Your task to perform on an android device: change keyboard looks Image 0: 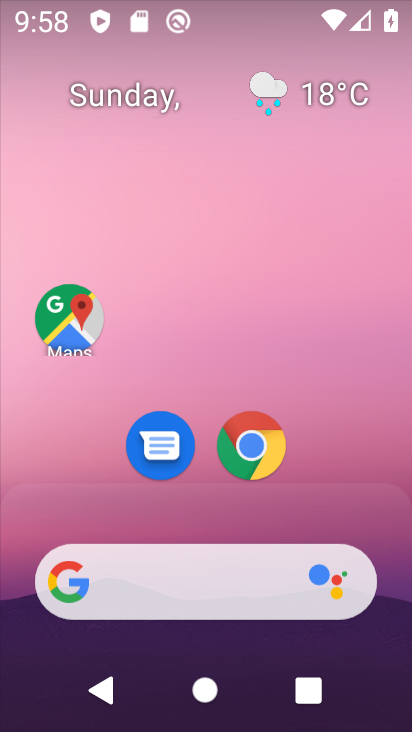
Step 0: press home button
Your task to perform on an android device: change keyboard looks Image 1: 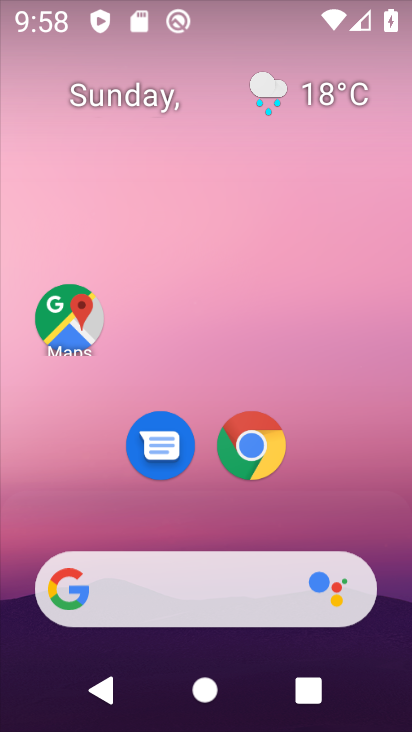
Step 1: drag from (214, 390) to (233, 16)
Your task to perform on an android device: change keyboard looks Image 2: 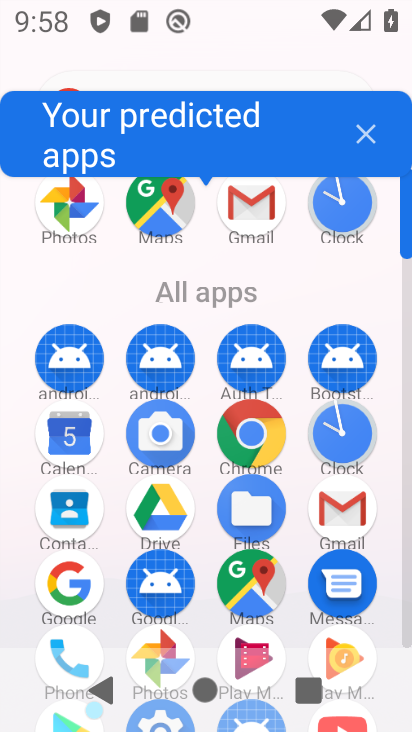
Step 2: drag from (298, 618) to (318, 150)
Your task to perform on an android device: change keyboard looks Image 3: 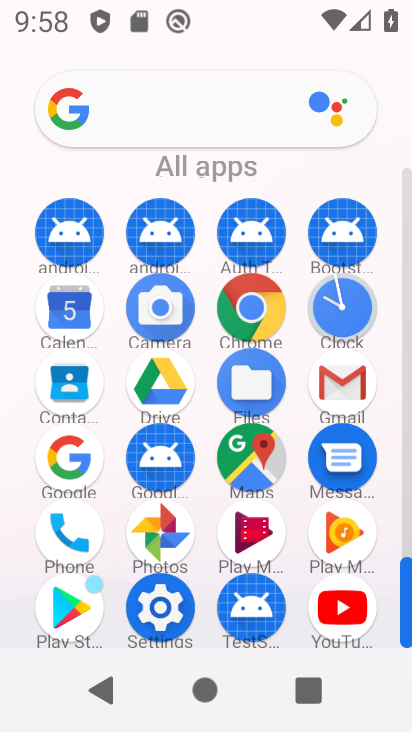
Step 3: click (151, 601)
Your task to perform on an android device: change keyboard looks Image 4: 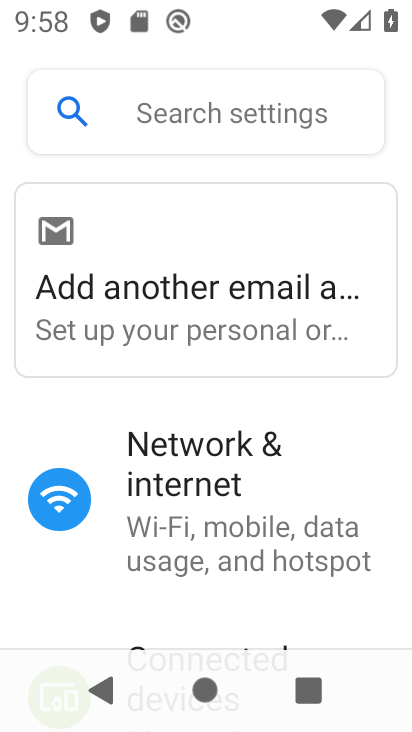
Step 4: drag from (263, 611) to (308, 3)
Your task to perform on an android device: change keyboard looks Image 5: 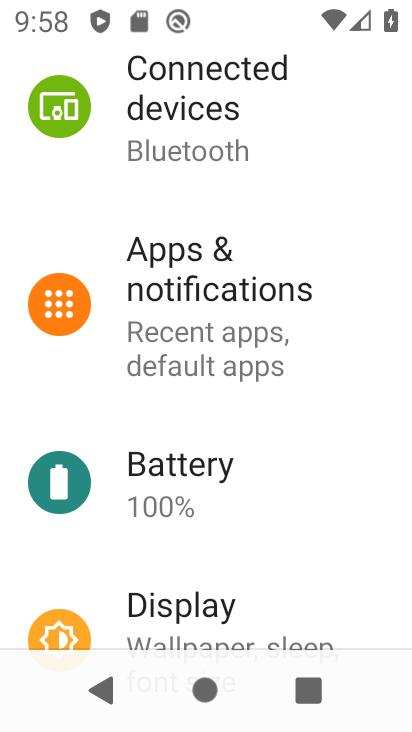
Step 5: drag from (249, 616) to (276, 4)
Your task to perform on an android device: change keyboard looks Image 6: 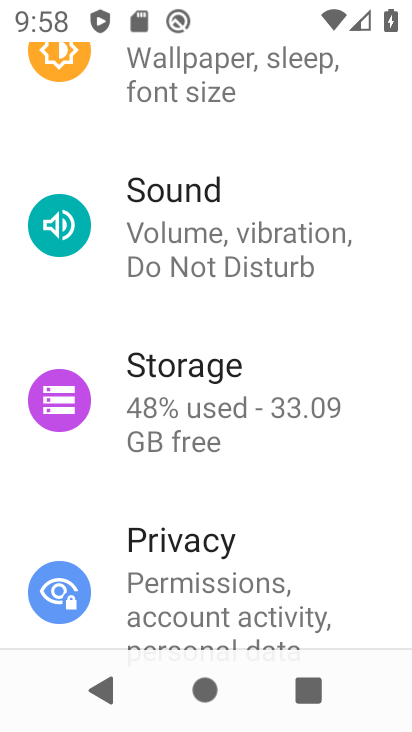
Step 6: drag from (261, 562) to (289, 43)
Your task to perform on an android device: change keyboard looks Image 7: 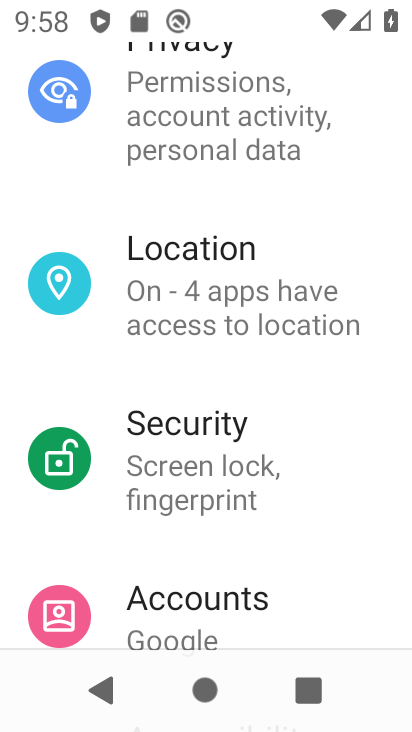
Step 7: drag from (254, 620) to (295, 123)
Your task to perform on an android device: change keyboard looks Image 8: 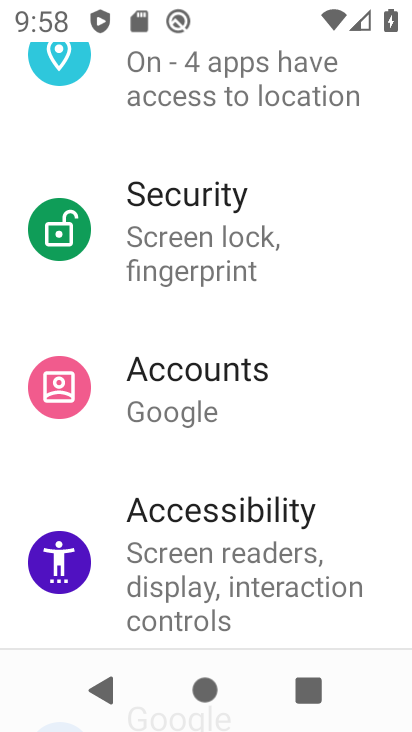
Step 8: drag from (264, 611) to (271, 99)
Your task to perform on an android device: change keyboard looks Image 9: 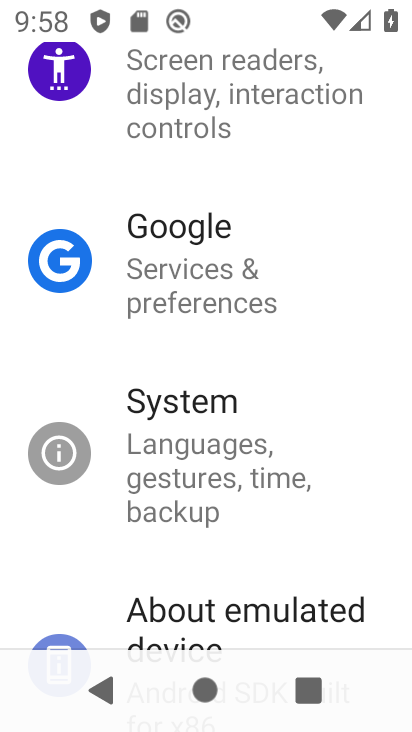
Step 9: click (280, 429)
Your task to perform on an android device: change keyboard looks Image 10: 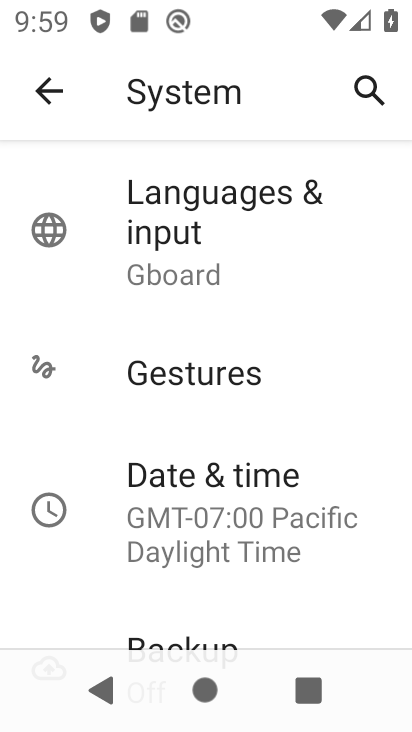
Step 10: click (214, 229)
Your task to perform on an android device: change keyboard looks Image 11: 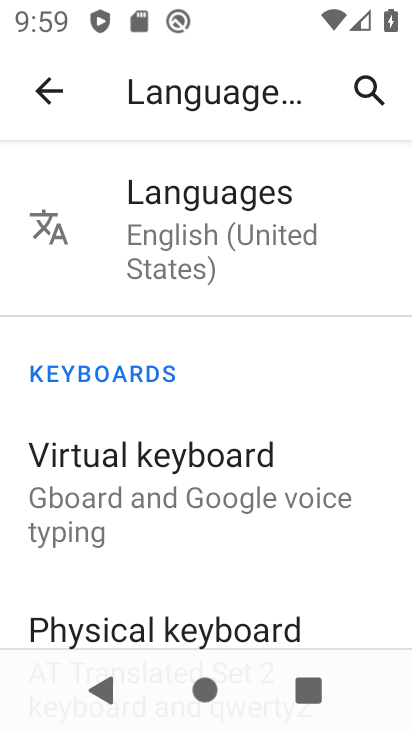
Step 11: click (169, 494)
Your task to perform on an android device: change keyboard looks Image 12: 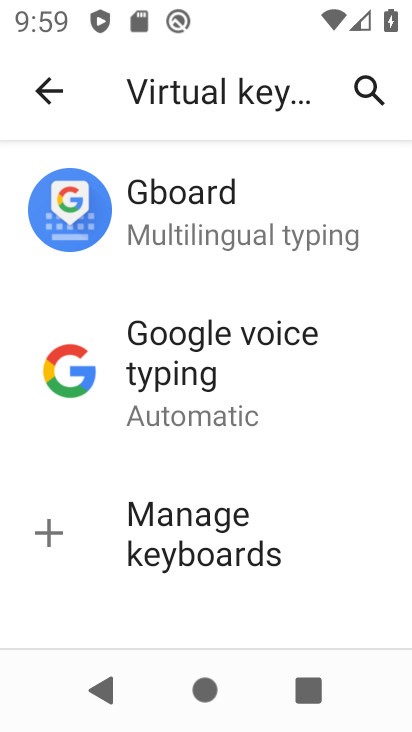
Step 12: click (254, 208)
Your task to perform on an android device: change keyboard looks Image 13: 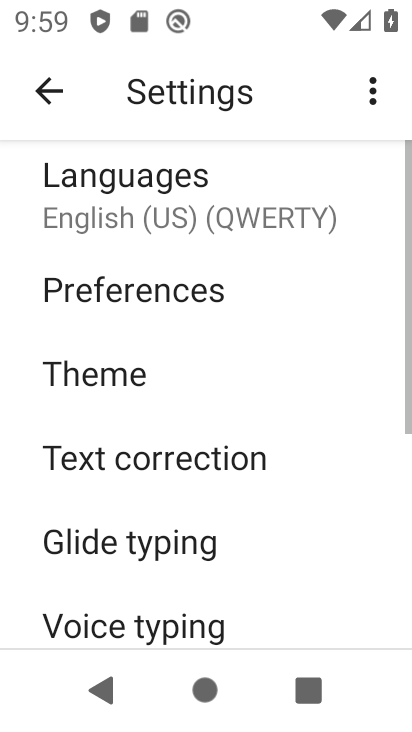
Step 13: click (163, 369)
Your task to perform on an android device: change keyboard looks Image 14: 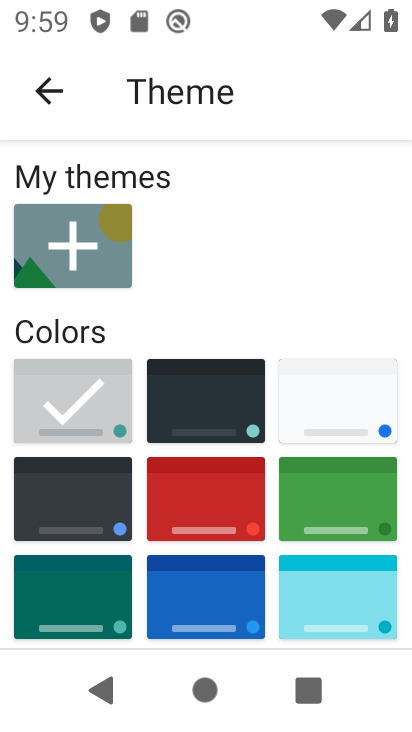
Step 14: click (360, 400)
Your task to perform on an android device: change keyboard looks Image 15: 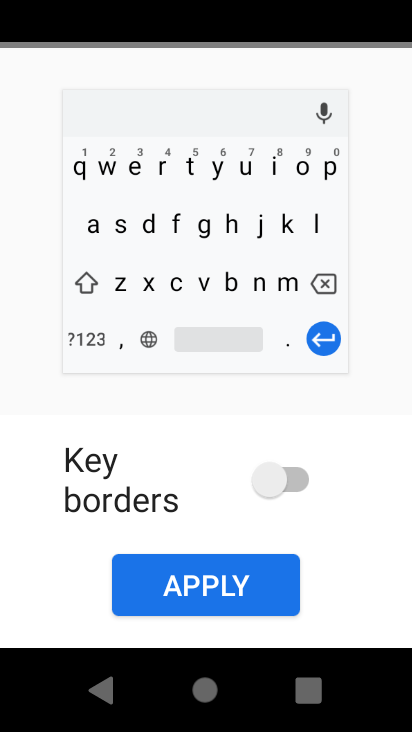
Step 15: click (199, 587)
Your task to perform on an android device: change keyboard looks Image 16: 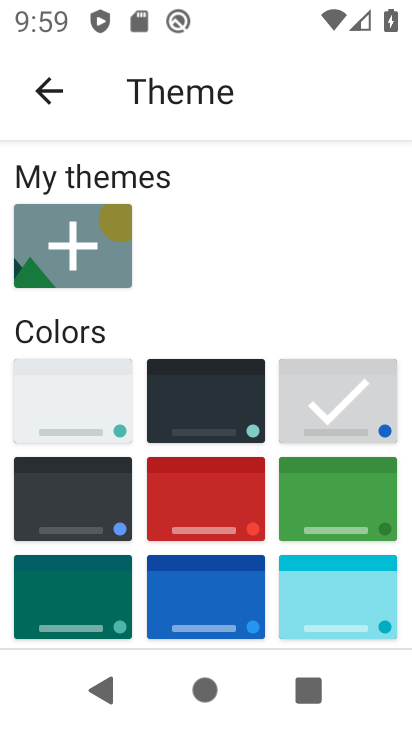
Step 16: task complete